Your task to perform on an android device: Open sound settings Image 0: 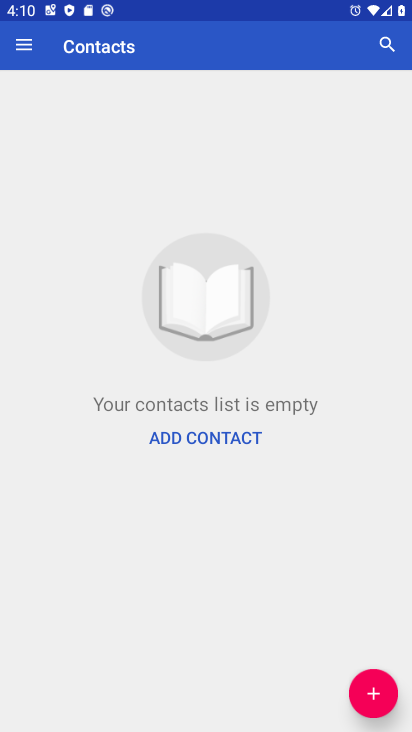
Step 0: press home button
Your task to perform on an android device: Open sound settings Image 1: 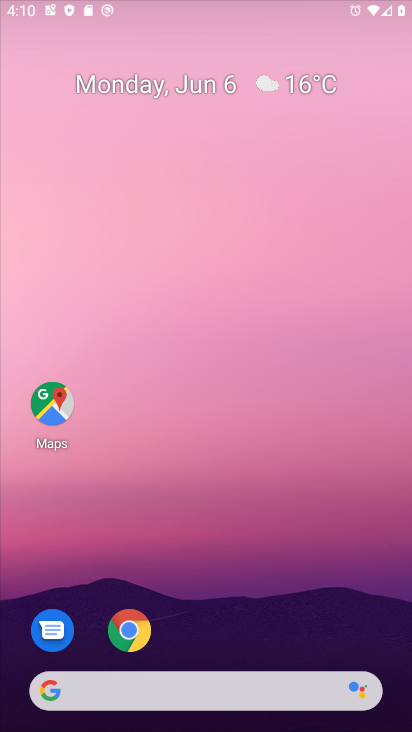
Step 1: drag from (329, 564) to (332, 18)
Your task to perform on an android device: Open sound settings Image 2: 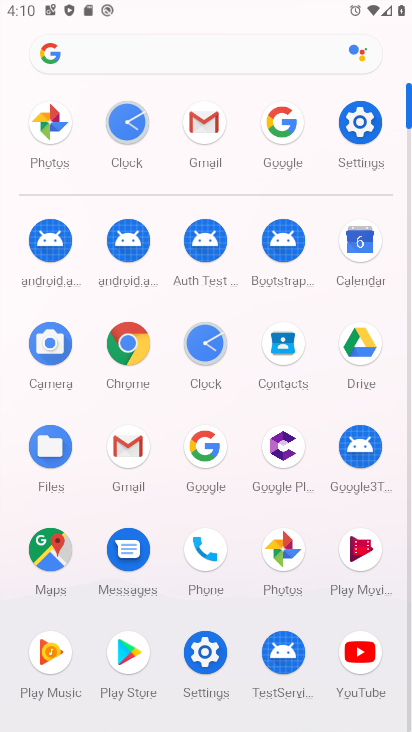
Step 2: click (364, 125)
Your task to perform on an android device: Open sound settings Image 3: 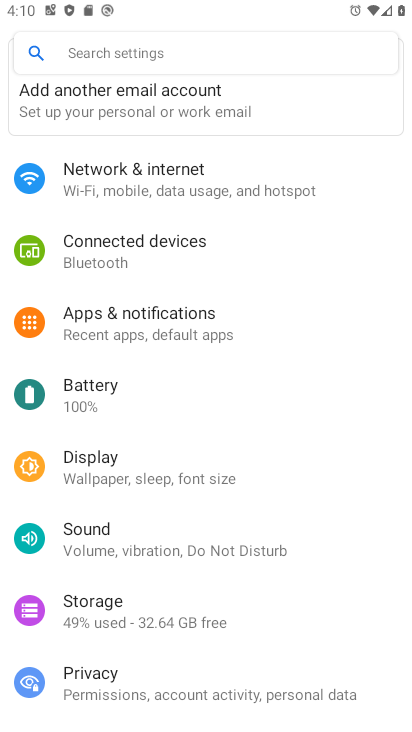
Step 3: click (144, 524)
Your task to perform on an android device: Open sound settings Image 4: 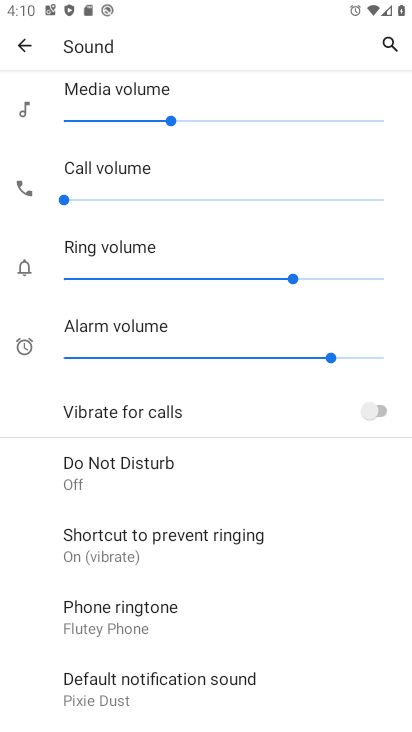
Step 4: task complete